Your task to perform on an android device: Go to Maps Image 0: 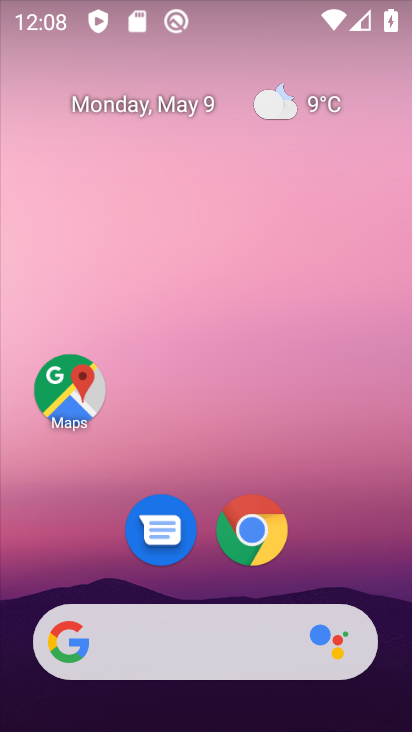
Step 0: drag from (353, 519) to (374, 246)
Your task to perform on an android device: Go to Maps Image 1: 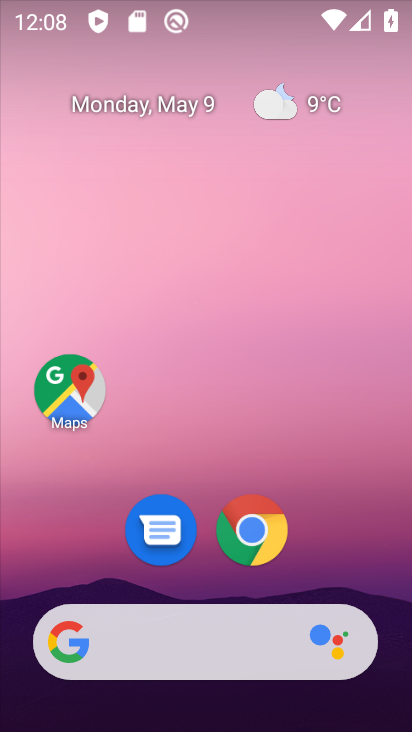
Step 1: drag from (341, 554) to (358, 222)
Your task to perform on an android device: Go to Maps Image 2: 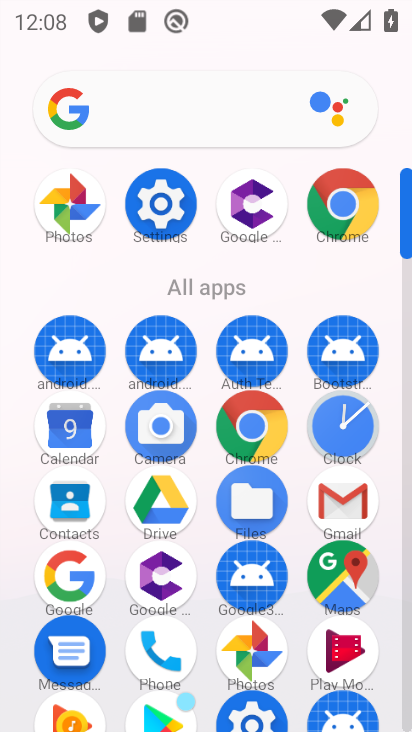
Step 2: drag from (282, 658) to (337, 232)
Your task to perform on an android device: Go to Maps Image 3: 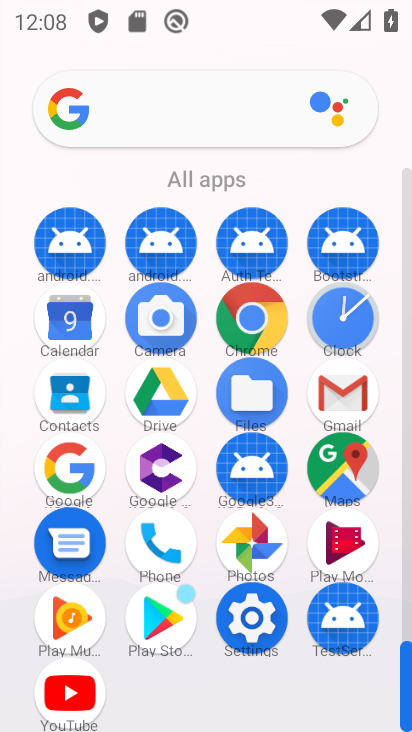
Step 3: click (341, 456)
Your task to perform on an android device: Go to Maps Image 4: 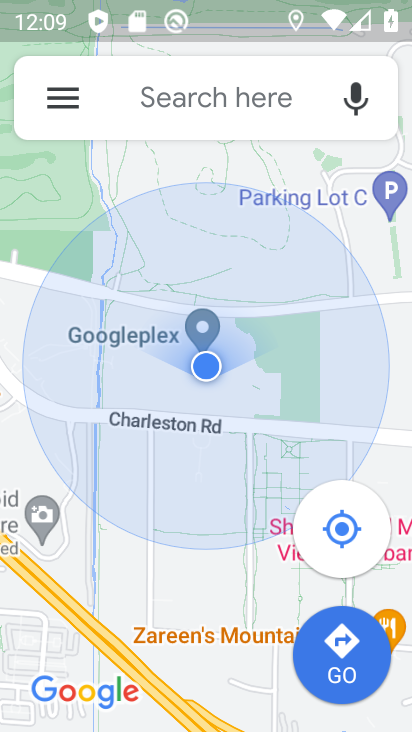
Step 4: task complete